Your task to perform on an android device: search for starred emails in the gmail app Image 0: 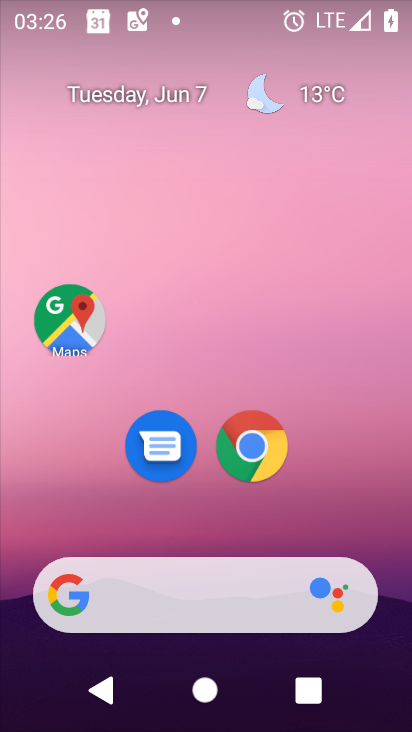
Step 0: drag from (273, 672) to (372, 18)
Your task to perform on an android device: search for starred emails in the gmail app Image 1: 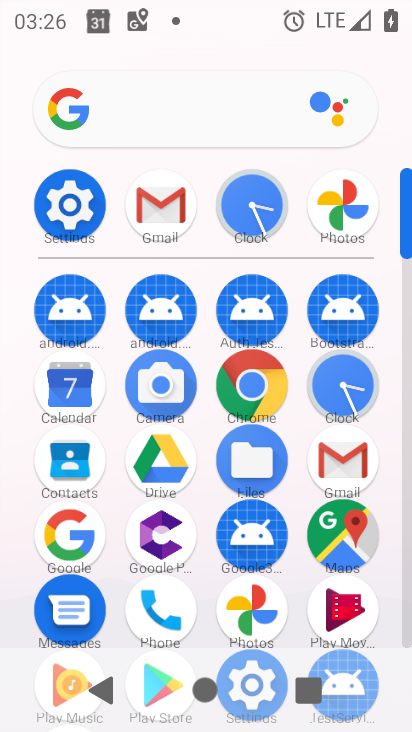
Step 1: click (154, 215)
Your task to perform on an android device: search for starred emails in the gmail app Image 2: 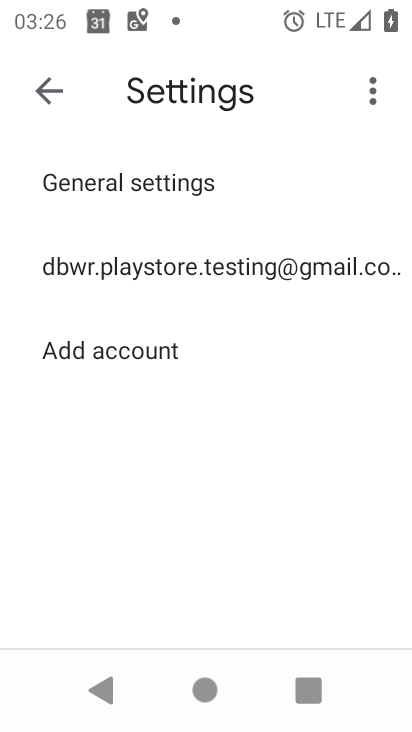
Step 2: click (59, 92)
Your task to perform on an android device: search for starred emails in the gmail app Image 3: 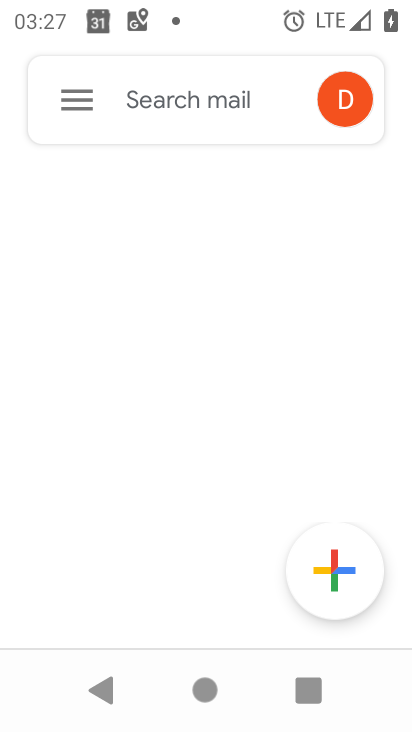
Step 3: click (77, 101)
Your task to perform on an android device: search for starred emails in the gmail app Image 4: 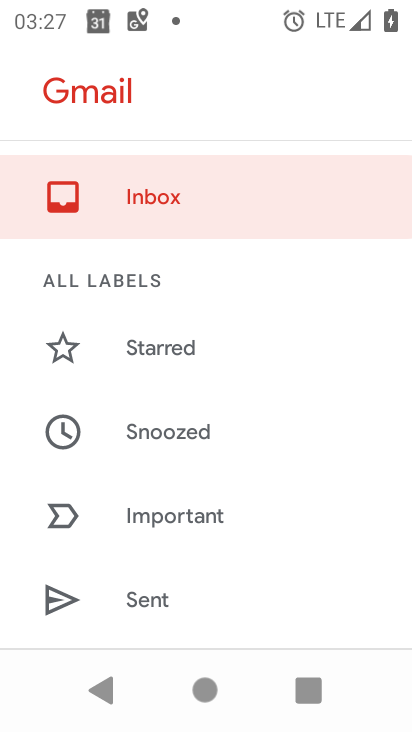
Step 4: click (217, 335)
Your task to perform on an android device: search for starred emails in the gmail app Image 5: 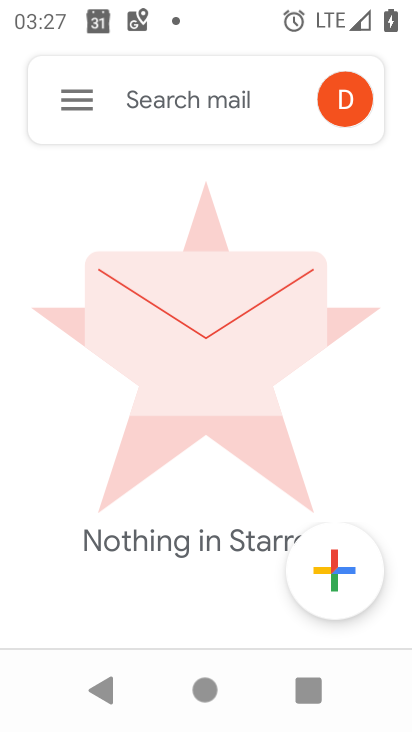
Step 5: task complete